Your task to perform on an android device: Go to Google maps Image 0: 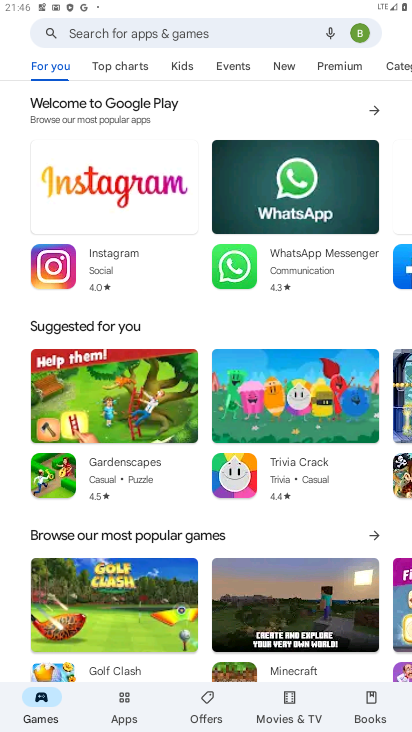
Step 0: press home button
Your task to perform on an android device: Go to Google maps Image 1: 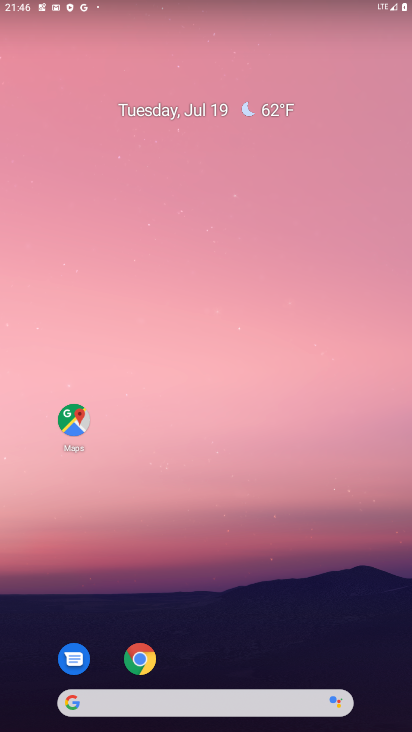
Step 1: click (82, 424)
Your task to perform on an android device: Go to Google maps Image 2: 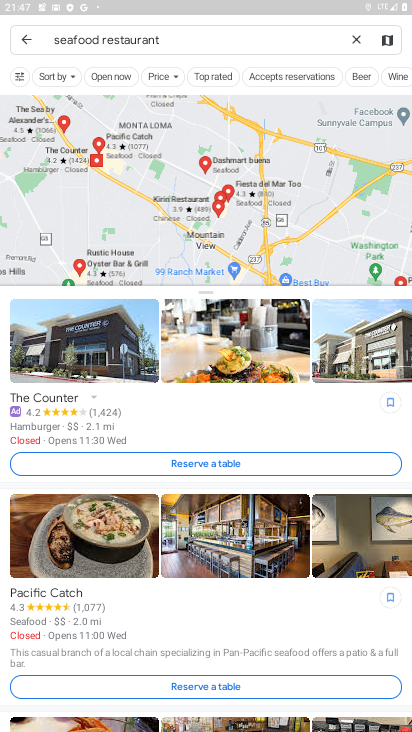
Step 2: task complete